Your task to perform on an android device: Go to eBay Image 0: 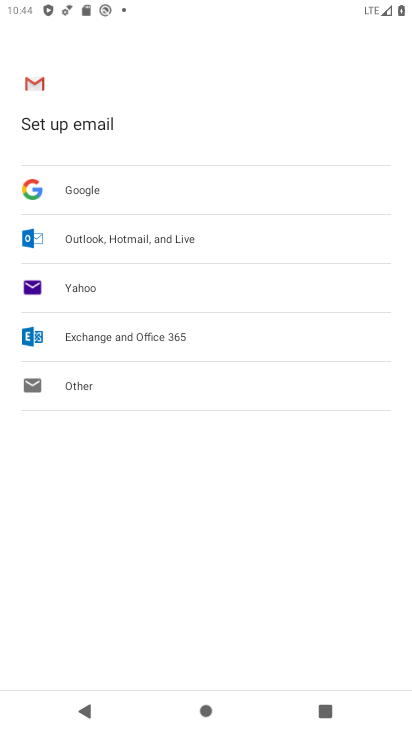
Step 0: press home button
Your task to perform on an android device: Go to eBay Image 1: 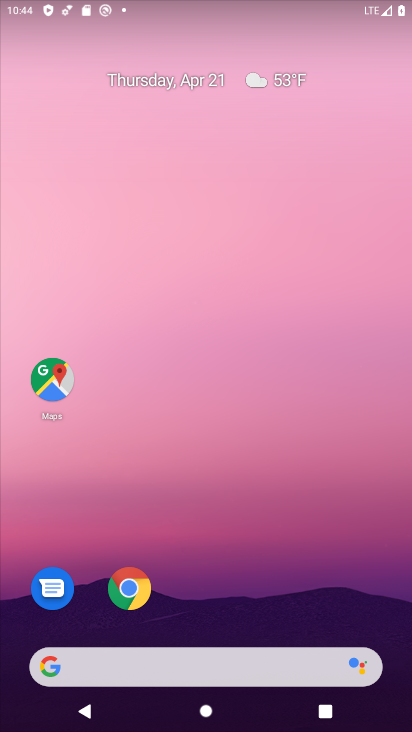
Step 1: click (135, 593)
Your task to perform on an android device: Go to eBay Image 2: 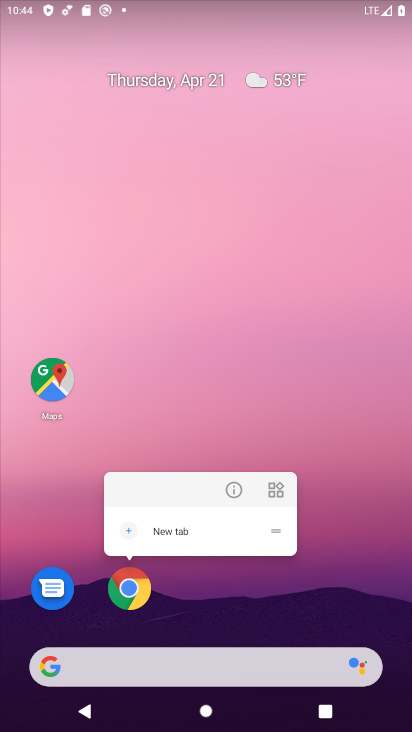
Step 2: click (127, 587)
Your task to perform on an android device: Go to eBay Image 3: 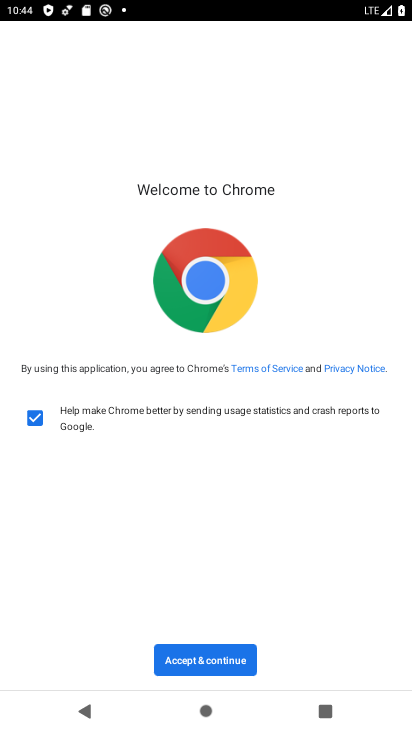
Step 3: click (165, 666)
Your task to perform on an android device: Go to eBay Image 4: 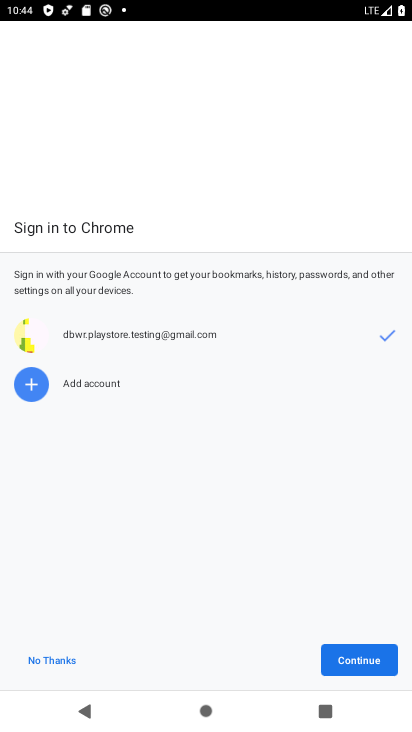
Step 4: click (370, 656)
Your task to perform on an android device: Go to eBay Image 5: 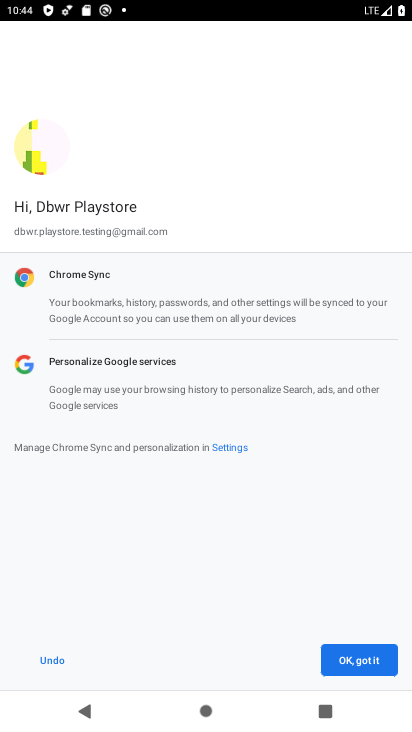
Step 5: click (370, 656)
Your task to perform on an android device: Go to eBay Image 6: 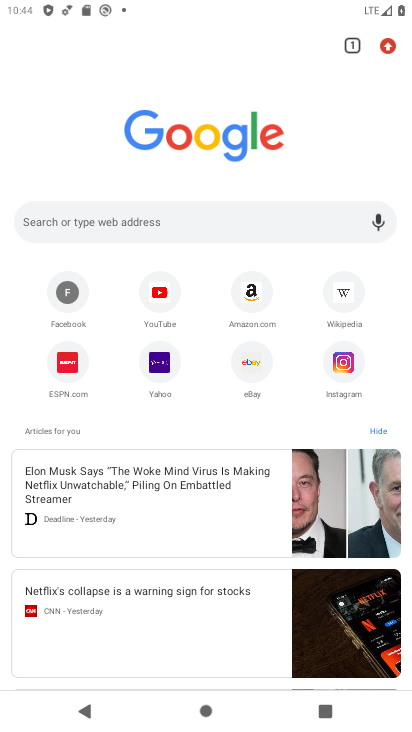
Step 6: click (254, 364)
Your task to perform on an android device: Go to eBay Image 7: 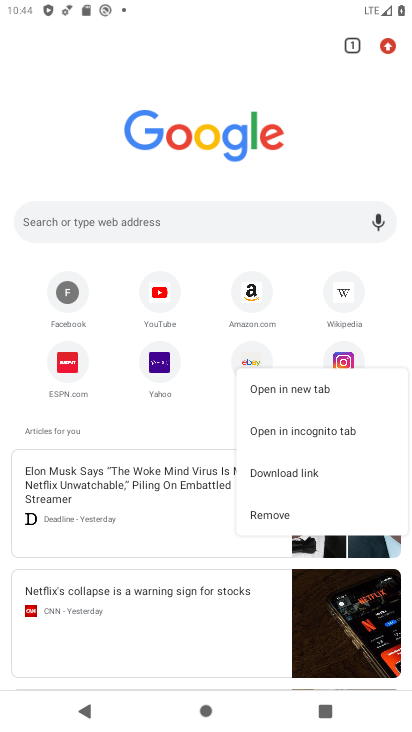
Step 7: click (250, 358)
Your task to perform on an android device: Go to eBay Image 8: 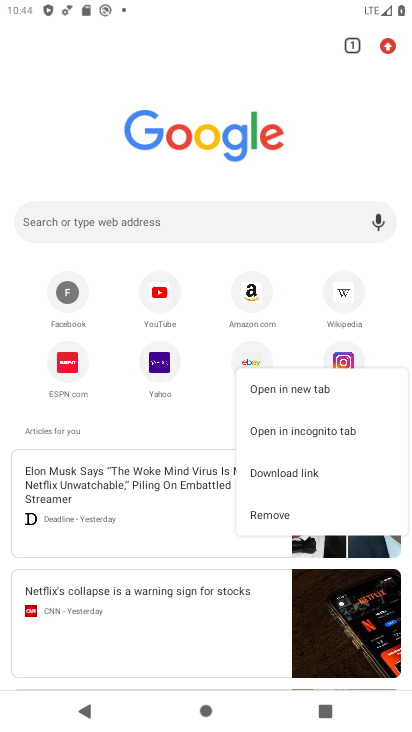
Step 8: click (250, 358)
Your task to perform on an android device: Go to eBay Image 9: 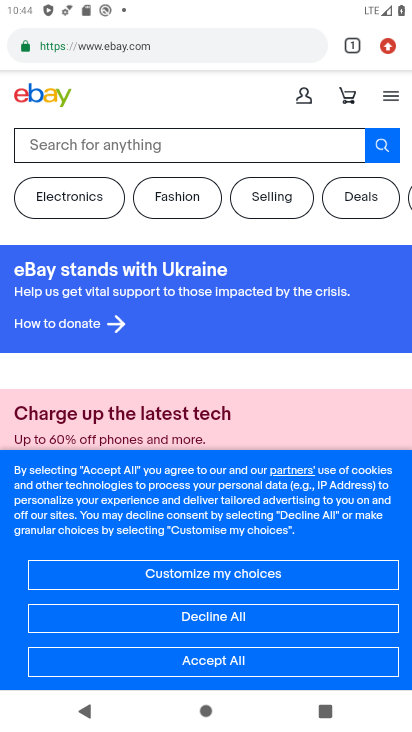
Step 9: task complete